Your task to perform on an android device: toggle translation in the chrome app Image 0: 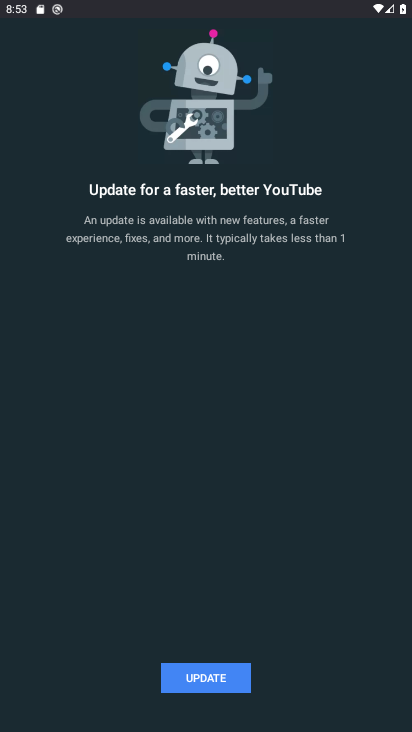
Step 0: press home button
Your task to perform on an android device: toggle translation in the chrome app Image 1: 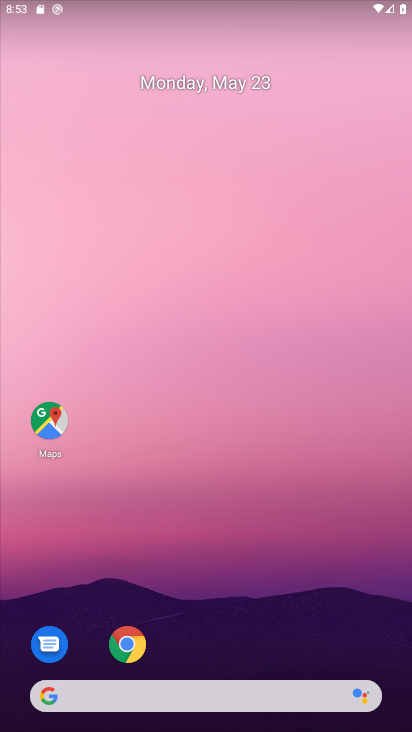
Step 1: drag from (316, 518) to (373, 125)
Your task to perform on an android device: toggle translation in the chrome app Image 2: 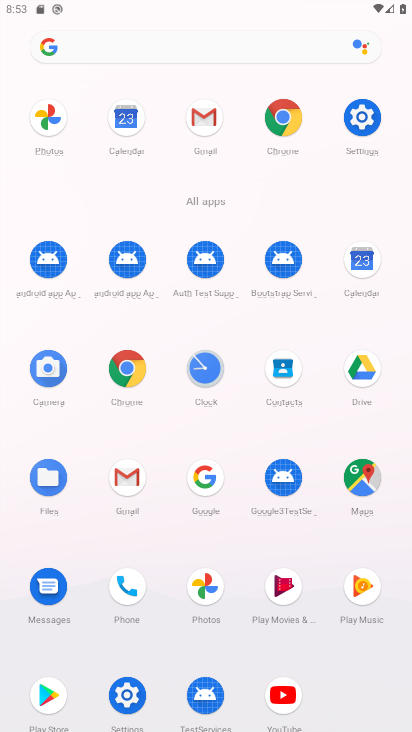
Step 2: click (124, 384)
Your task to perform on an android device: toggle translation in the chrome app Image 3: 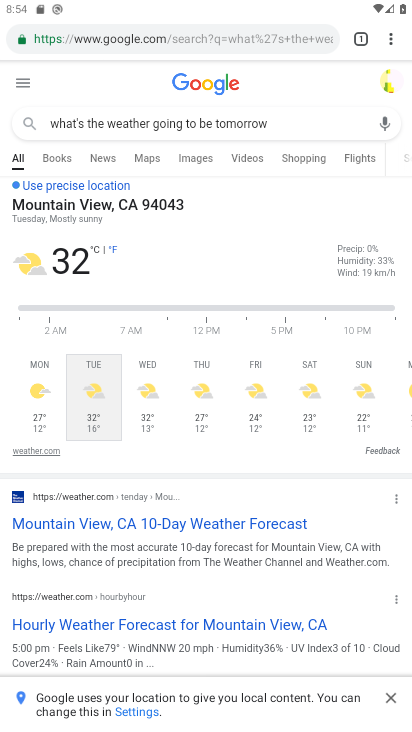
Step 3: drag from (391, 45) to (238, 444)
Your task to perform on an android device: toggle translation in the chrome app Image 4: 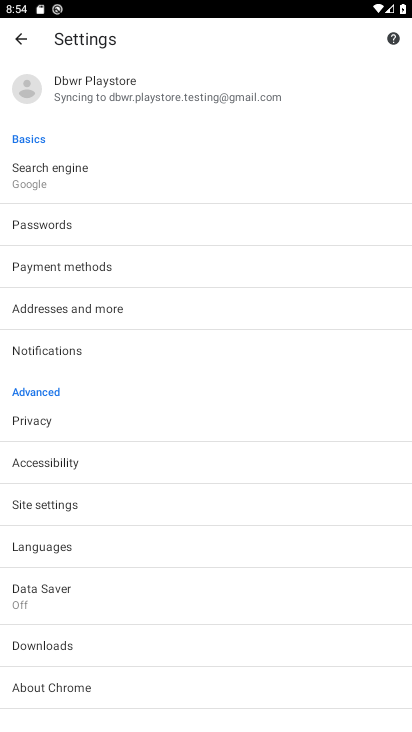
Step 4: click (112, 549)
Your task to perform on an android device: toggle translation in the chrome app Image 5: 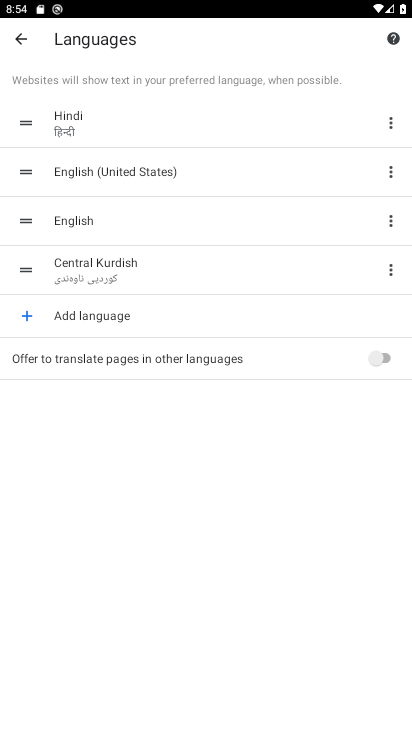
Step 5: click (390, 356)
Your task to perform on an android device: toggle translation in the chrome app Image 6: 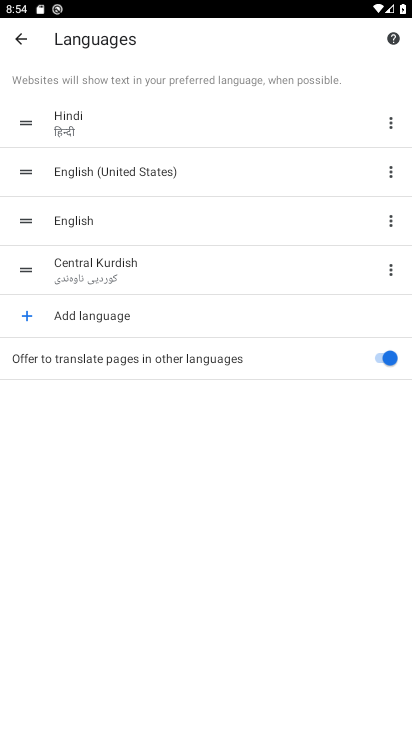
Step 6: task complete